Your task to perform on an android device: Search for the ikea billy bookcase Image 0: 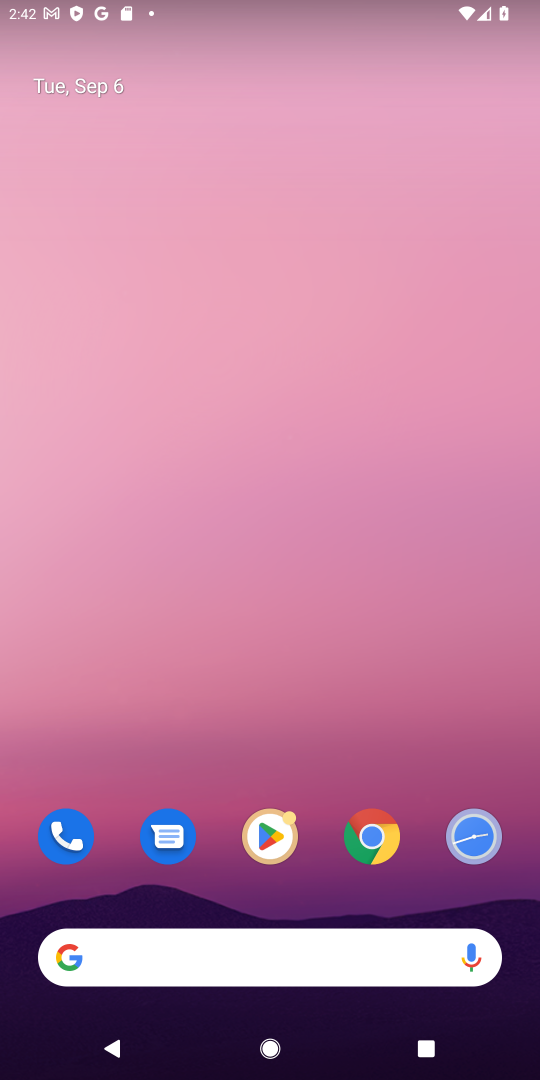
Step 0: click (273, 947)
Your task to perform on an android device: Search for the ikea billy bookcase Image 1: 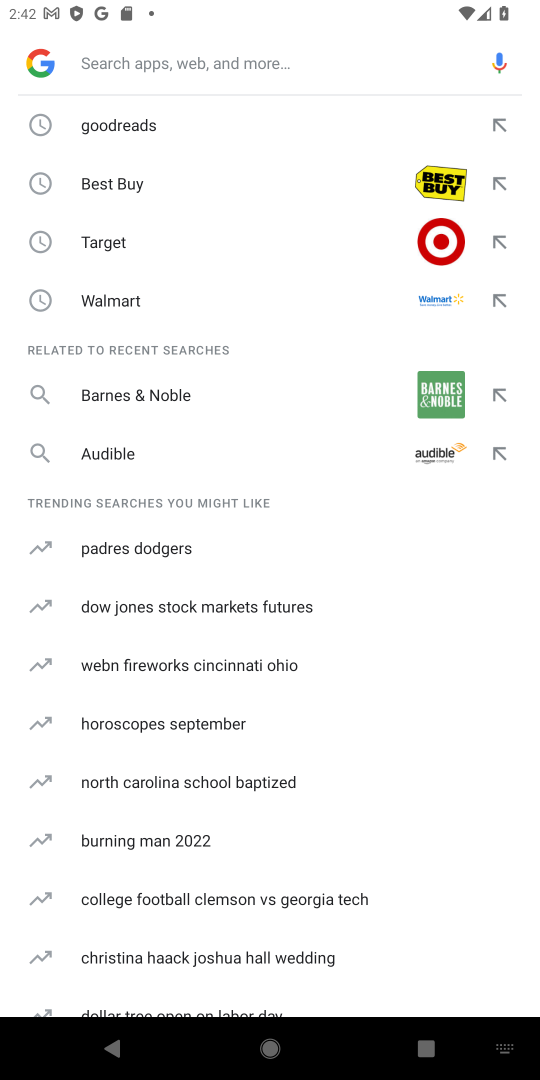
Step 1: type "ikea billy bookcase"
Your task to perform on an android device: Search for the ikea billy bookcase Image 2: 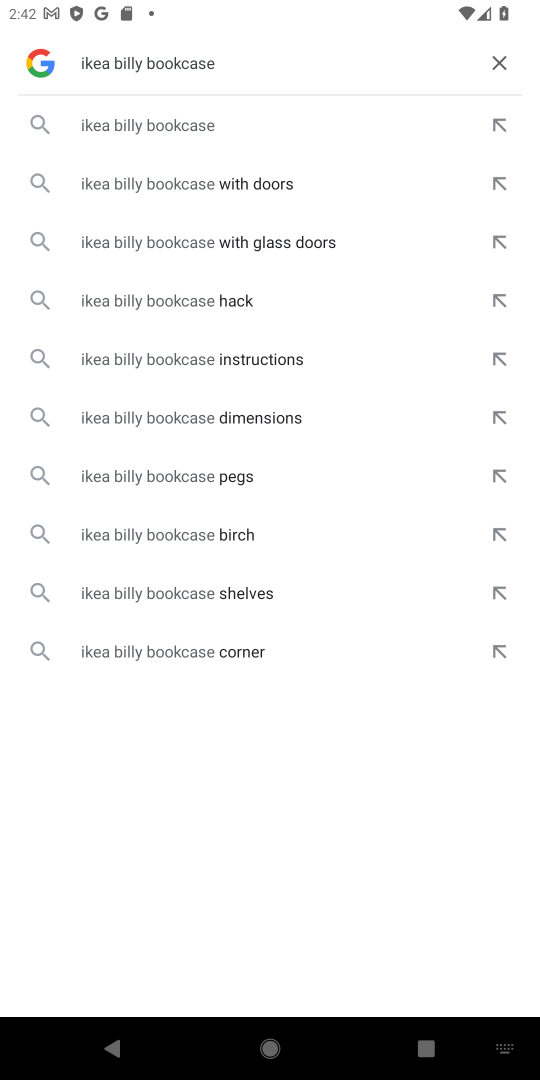
Step 2: click (142, 115)
Your task to perform on an android device: Search for the ikea billy bookcase Image 3: 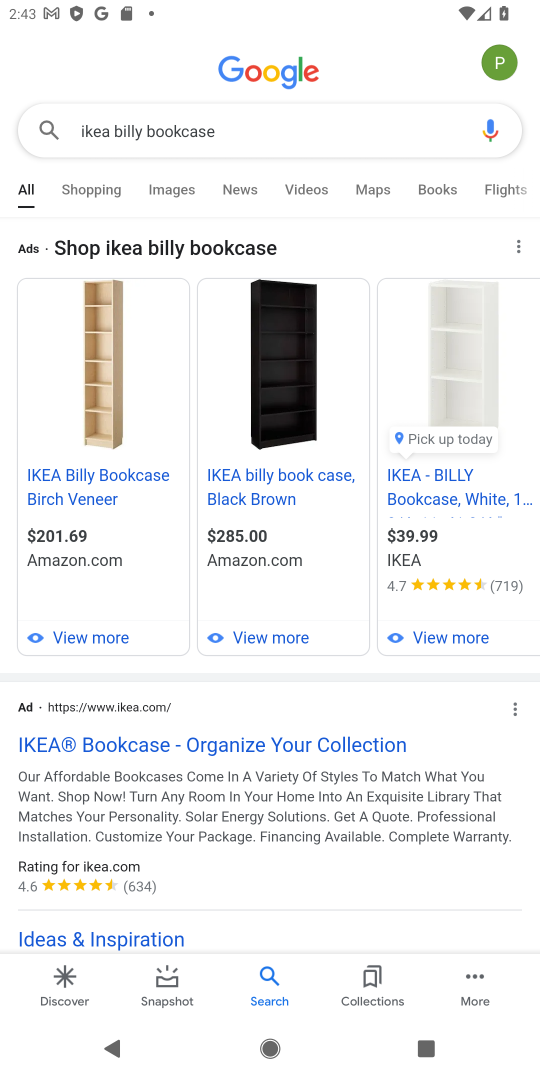
Step 3: task complete